Your task to perform on an android device: set the stopwatch Image 0: 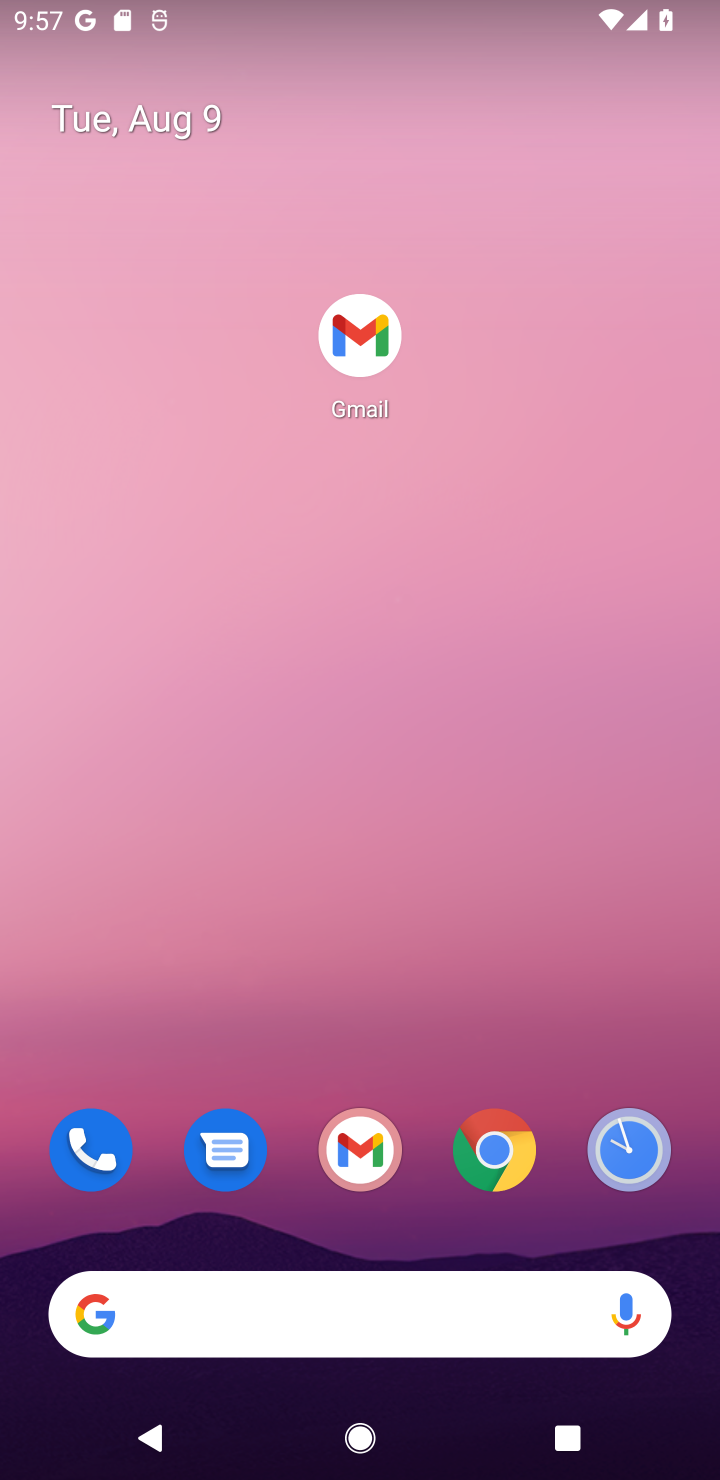
Step 0: drag from (295, 1002) to (716, 194)
Your task to perform on an android device: set the stopwatch Image 1: 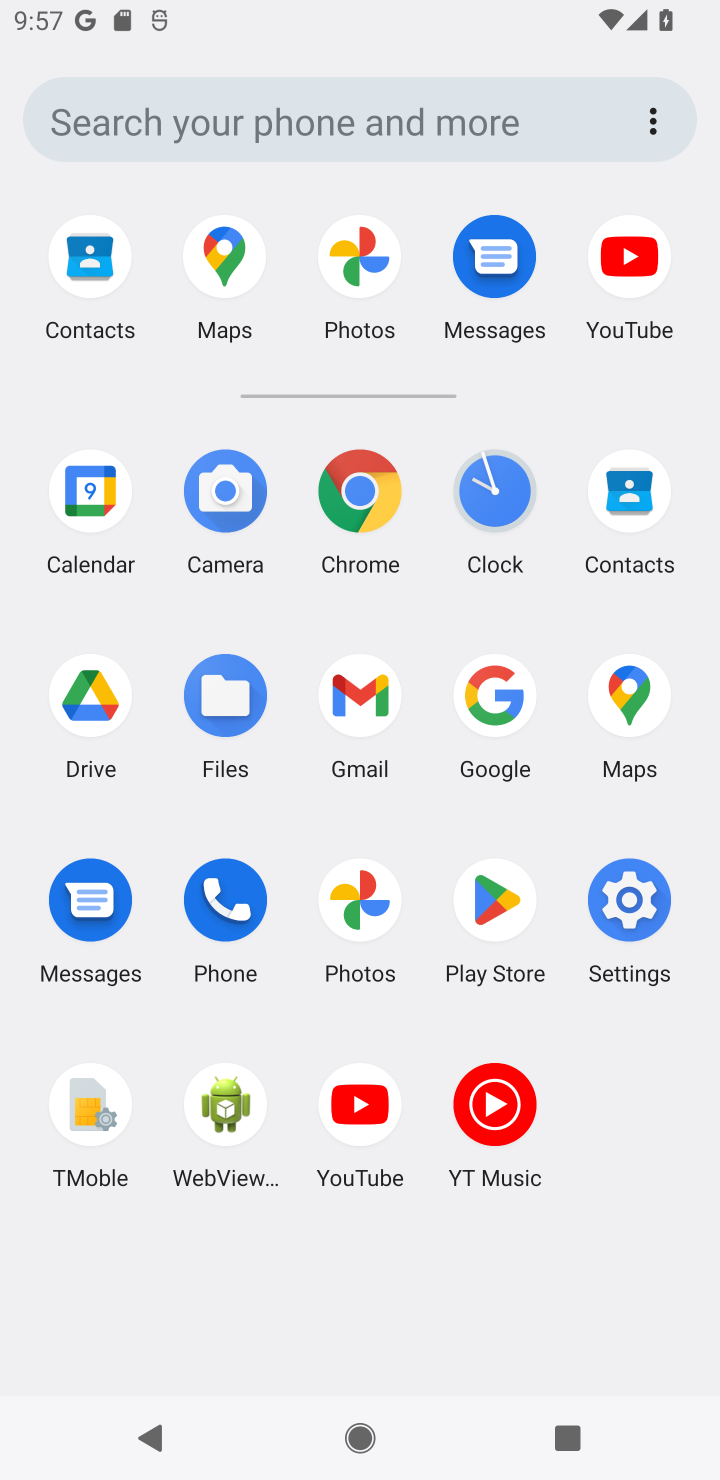
Step 1: click (510, 525)
Your task to perform on an android device: set the stopwatch Image 2: 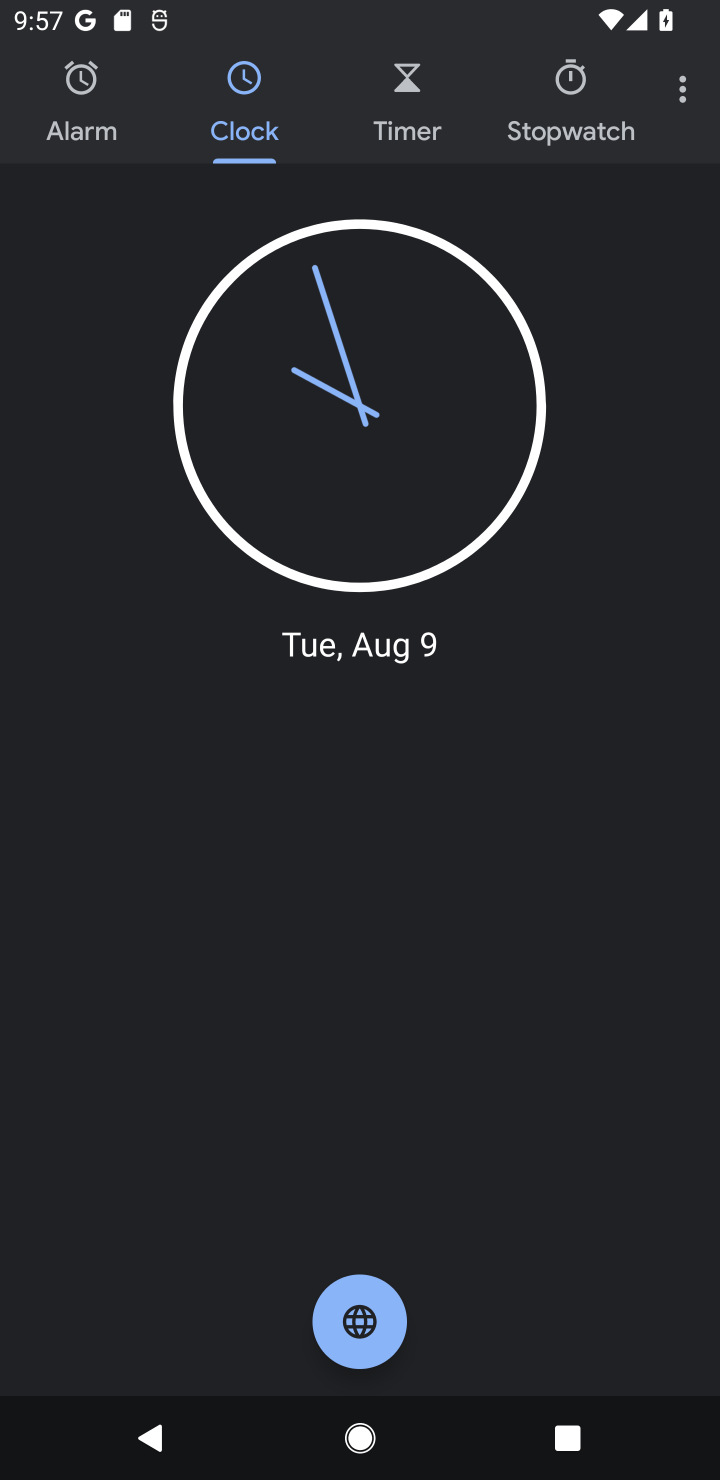
Step 2: click (565, 96)
Your task to perform on an android device: set the stopwatch Image 3: 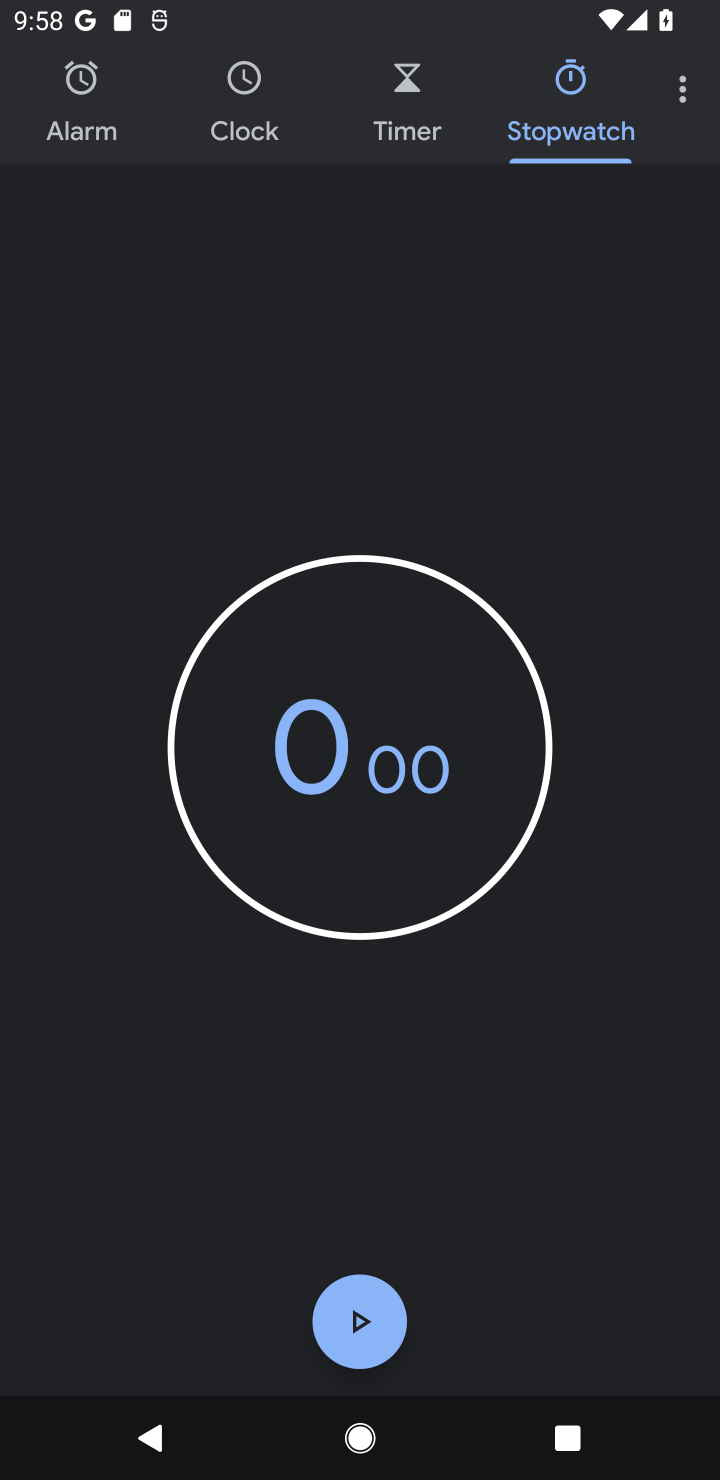
Step 3: click (358, 1341)
Your task to perform on an android device: set the stopwatch Image 4: 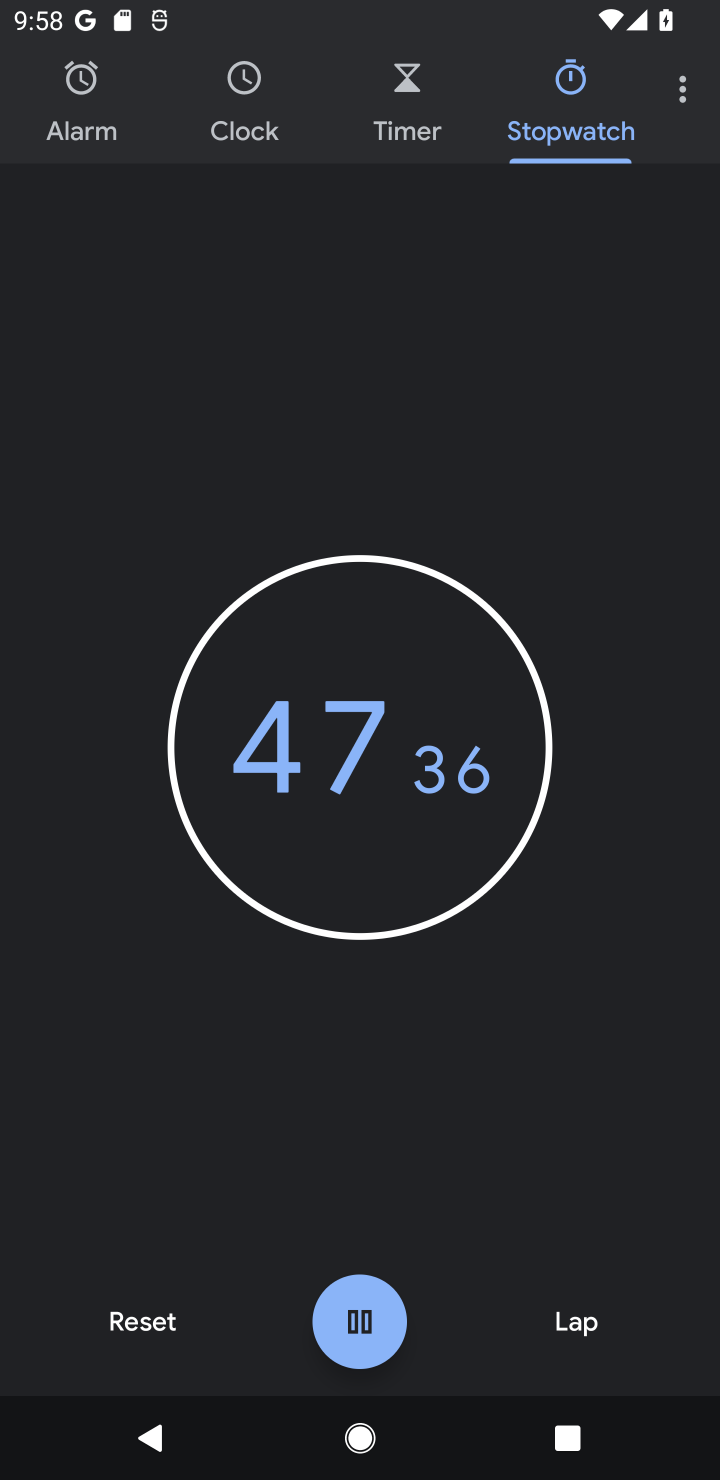
Step 4: task complete